Your task to perform on an android device: turn off smart reply in the gmail app Image 0: 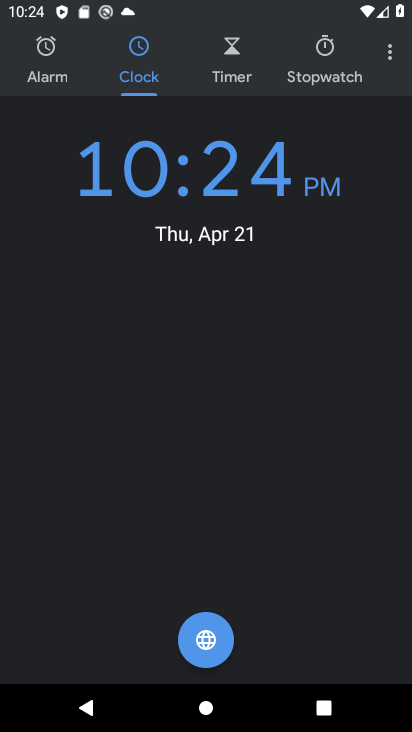
Step 0: press home button
Your task to perform on an android device: turn off smart reply in the gmail app Image 1: 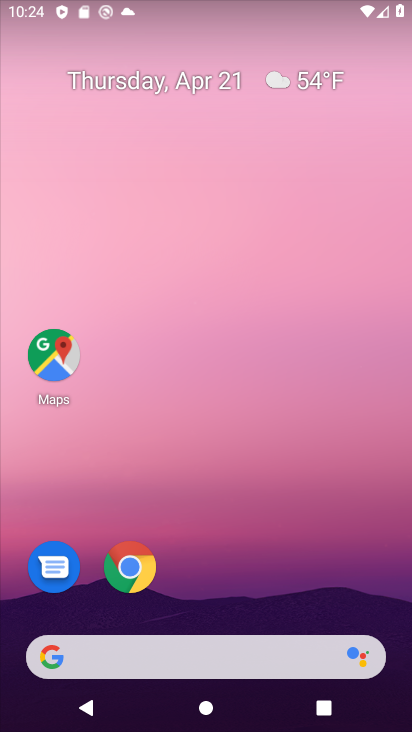
Step 1: drag from (259, 551) to (190, 0)
Your task to perform on an android device: turn off smart reply in the gmail app Image 2: 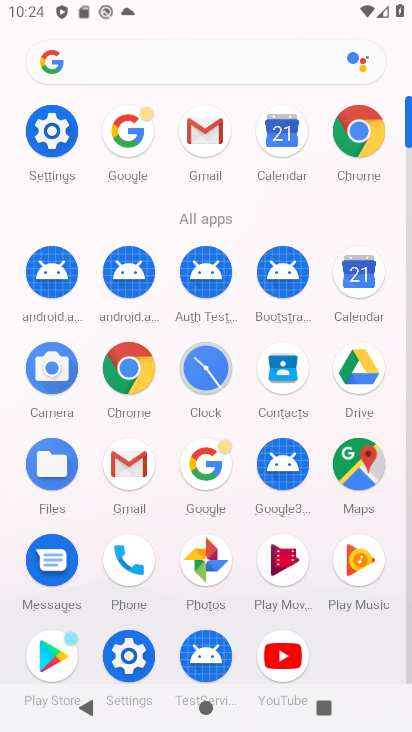
Step 2: click (201, 134)
Your task to perform on an android device: turn off smart reply in the gmail app Image 3: 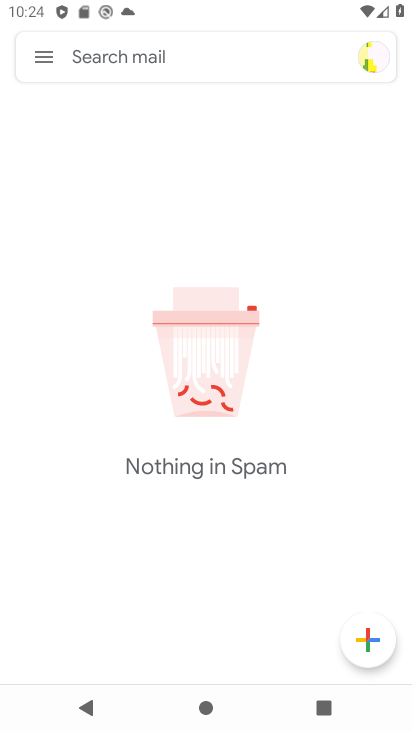
Step 3: click (41, 57)
Your task to perform on an android device: turn off smart reply in the gmail app Image 4: 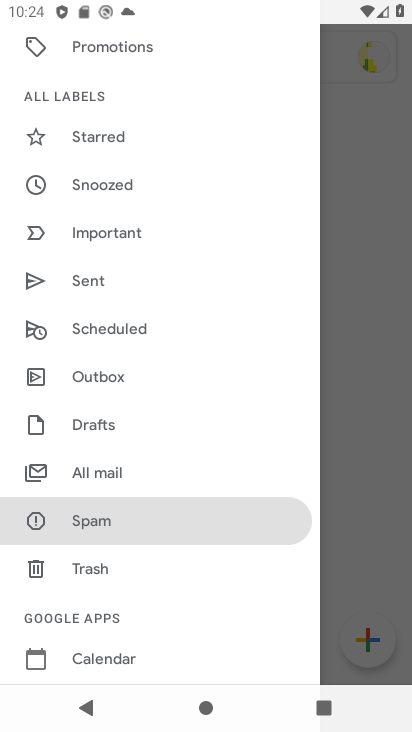
Step 4: drag from (176, 436) to (190, 284)
Your task to perform on an android device: turn off smart reply in the gmail app Image 5: 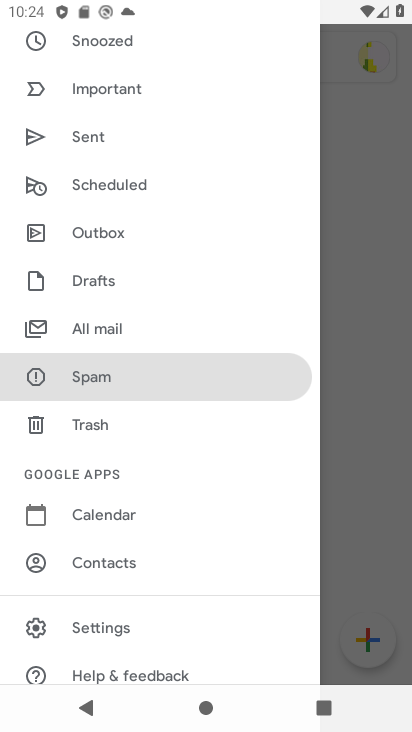
Step 5: click (112, 630)
Your task to perform on an android device: turn off smart reply in the gmail app Image 6: 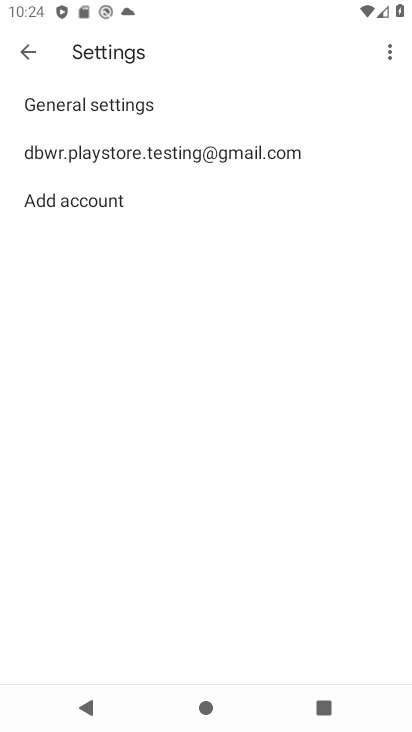
Step 6: click (230, 156)
Your task to perform on an android device: turn off smart reply in the gmail app Image 7: 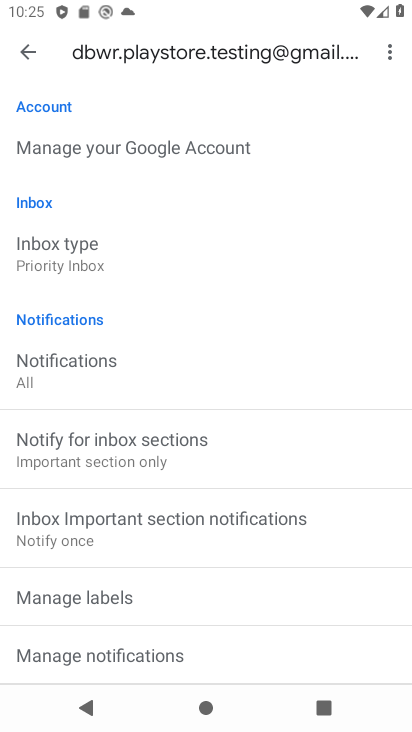
Step 7: drag from (117, 339) to (175, 216)
Your task to perform on an android device: turn off smart reply in the gmail app Image 8: 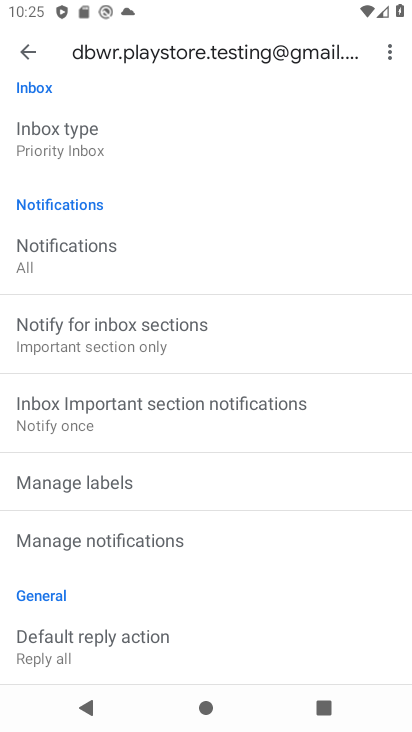
Step 8: drag from (161, 434) to (217, 303)
Your task to perform on an android device: turn off smart reply in the gmail app Image 9: 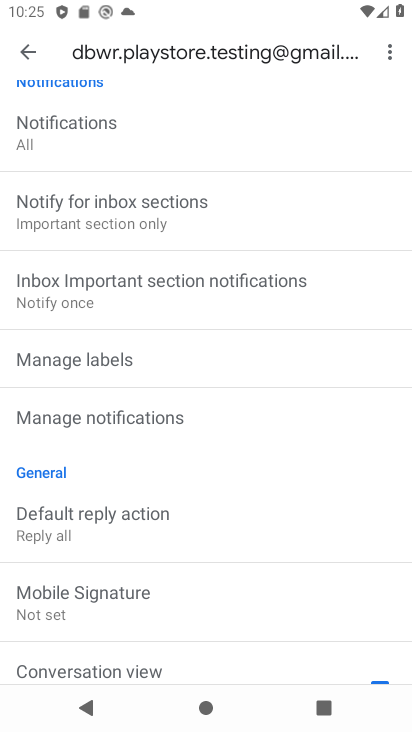
Step 9: drag from (182, 433) to (243, 337)
Your task to perform on an android device: turn off smart reply in the gmail app Image 10: 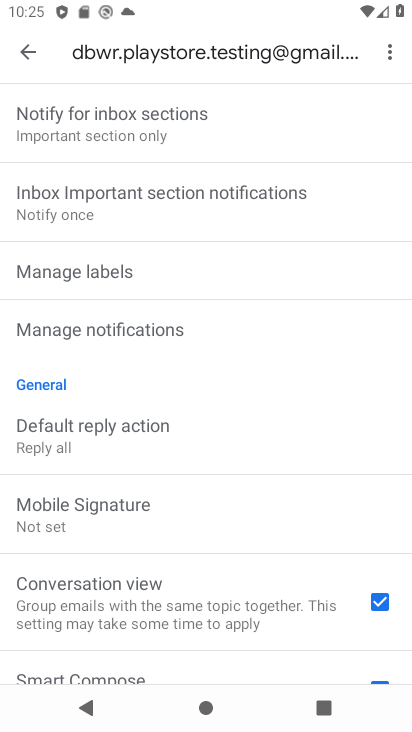
Step 10: drag from (209, 432) to (236, 365)
Your task to perform on an android device: turn off smart reply in the gmail app Image 11: 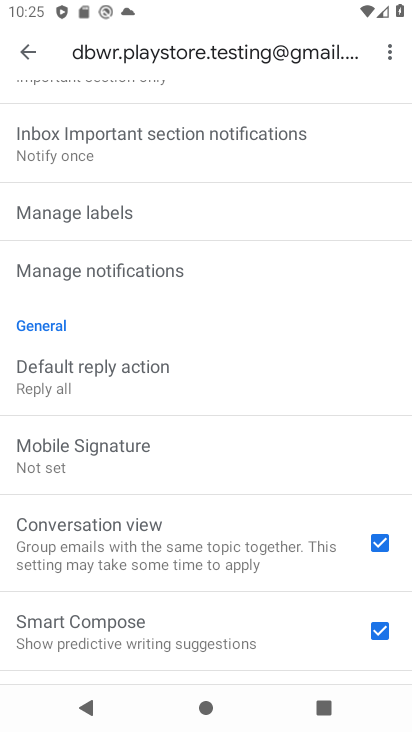
Step 11: drag from (195, 461) to (237, 374)
Your task to perform on an android device: turn off smart reply in the gmail app Image 12: 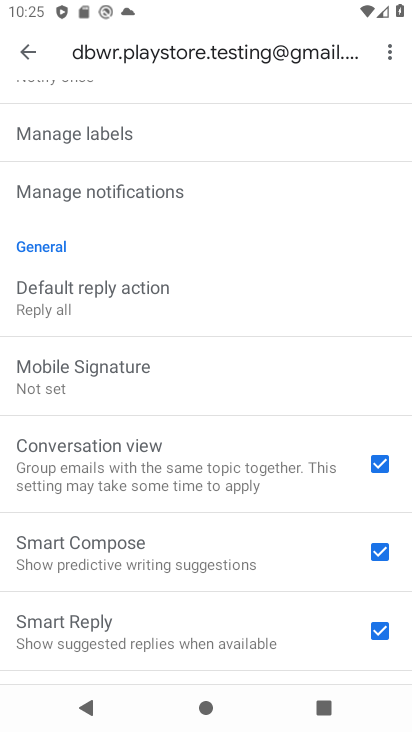
Step 12: drag from (194, 539) to (283, 421)
Your task to perform on an android device: turn off smart reply in the gmail app Image 13: 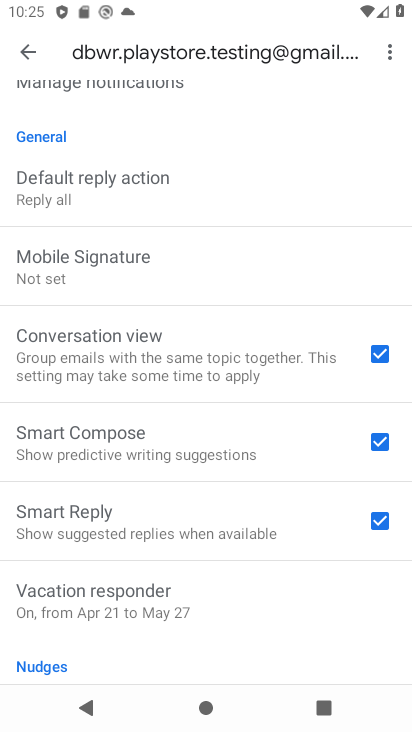
Step 13: click (376, 526)
Your task to perform on an android device: turn off smart reply in the gmail app Image 14: 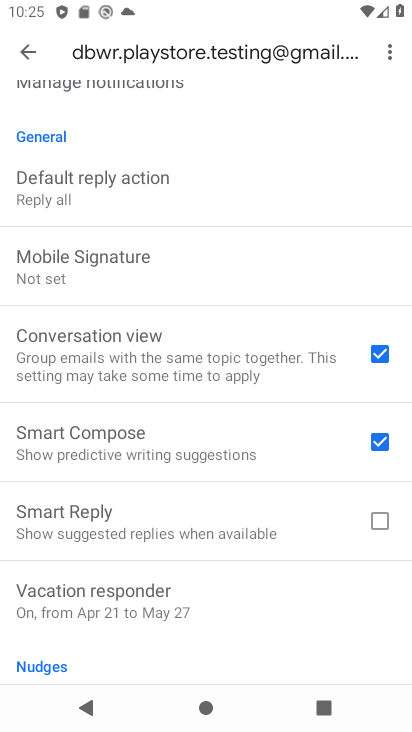
Step 14: task complete